Your task to perform on an android device: Find coffee shops on Maps Image 0: 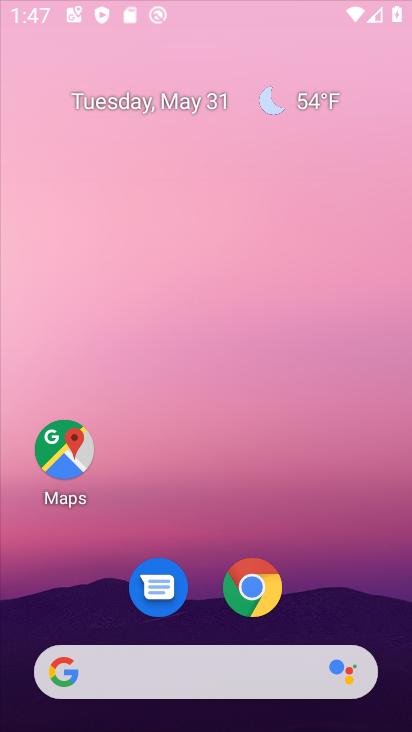
Step 0: drag from (177, 614) to (268, 49)
Your task to perform on an android device: Find coffee shops on Maps Image 1: 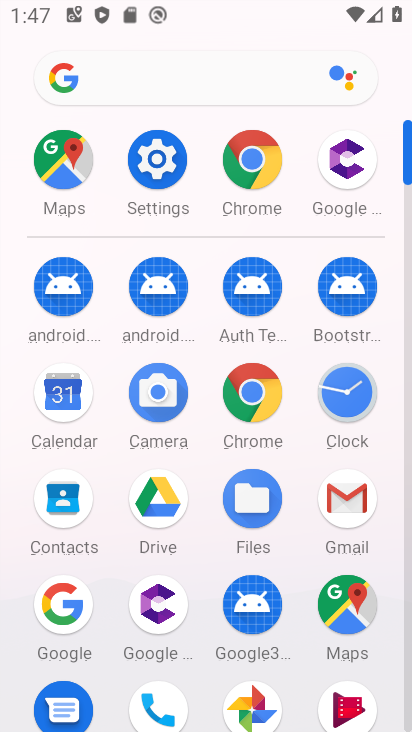
Step 1: click (341, 605)
Your task to perform on an android device: Find coffee shops on Maps Image 2: 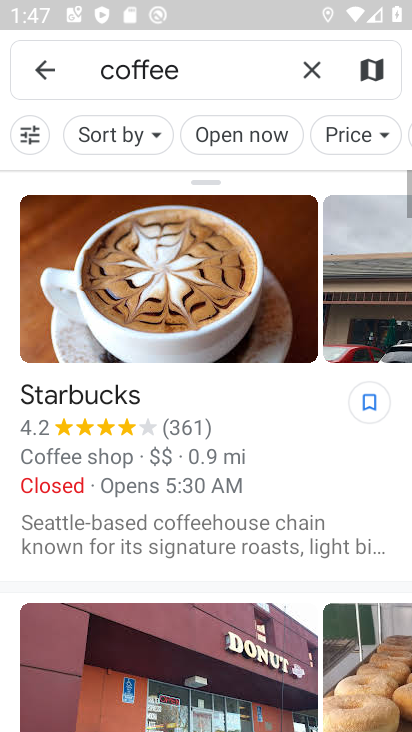
Step 2: task complete